Your task to perform on an android device: install app "Mercado Libre" Image 0: 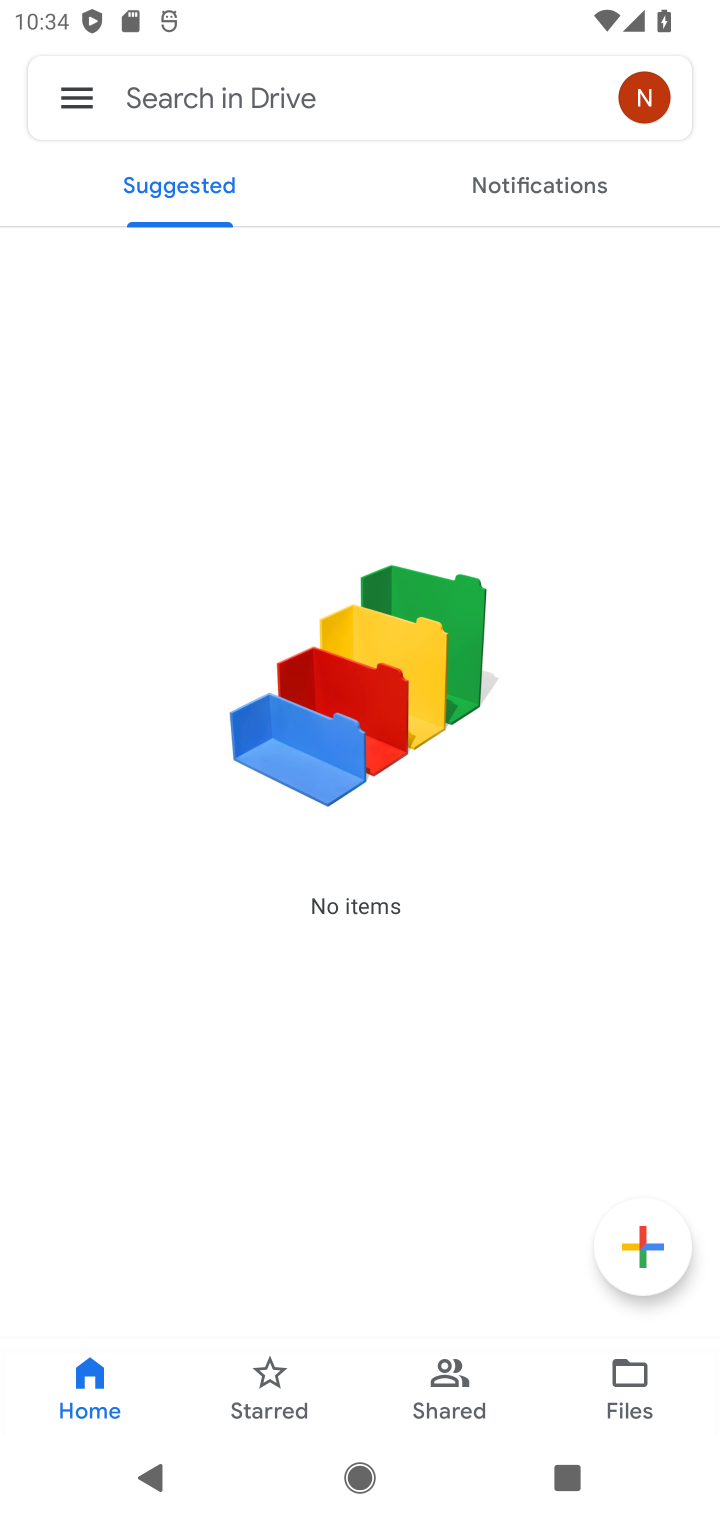
Step 0: press home button
Your task to perform on an android device: install app "Mercado Libre" Image 1: 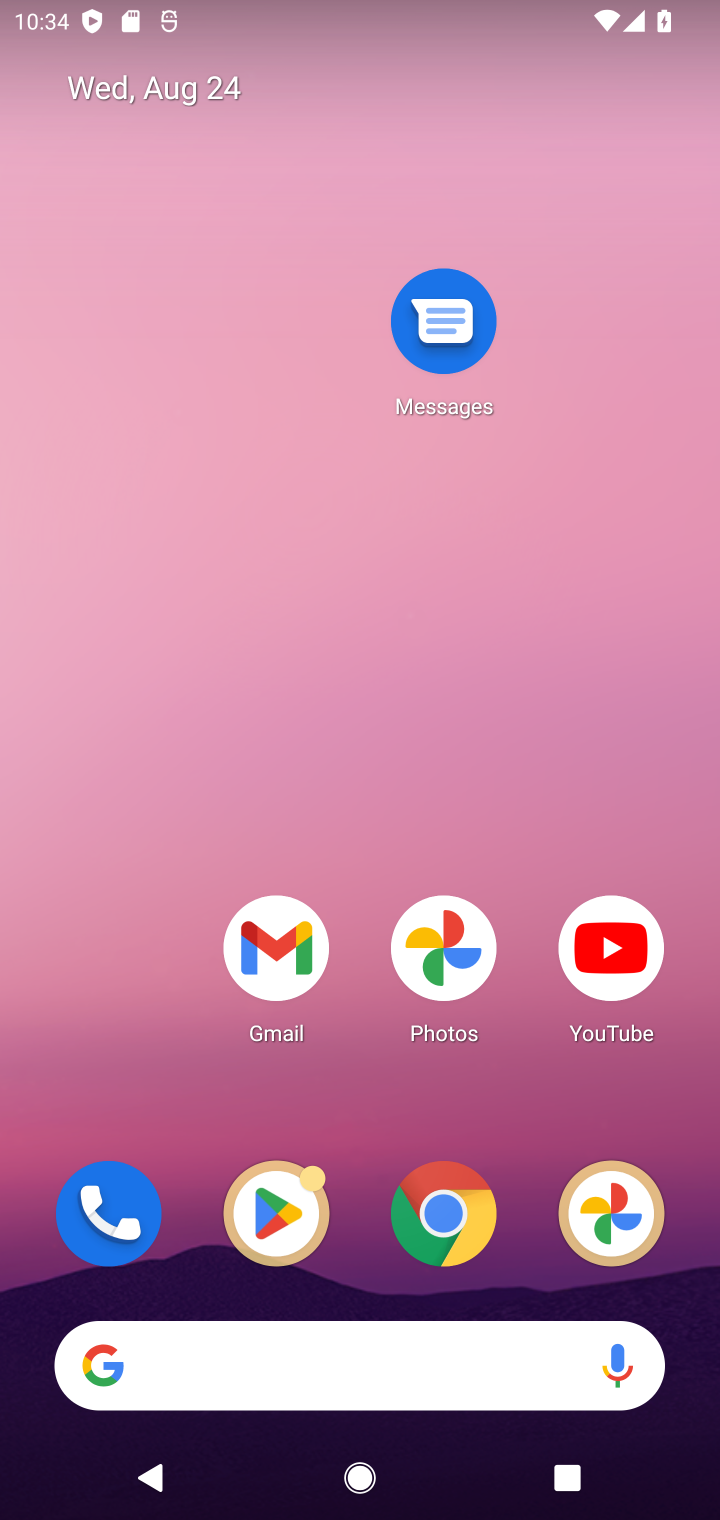
Step 1: click (275, 1225)
Your task to perform on an android device: install app "Mercado Libre" Image 2: 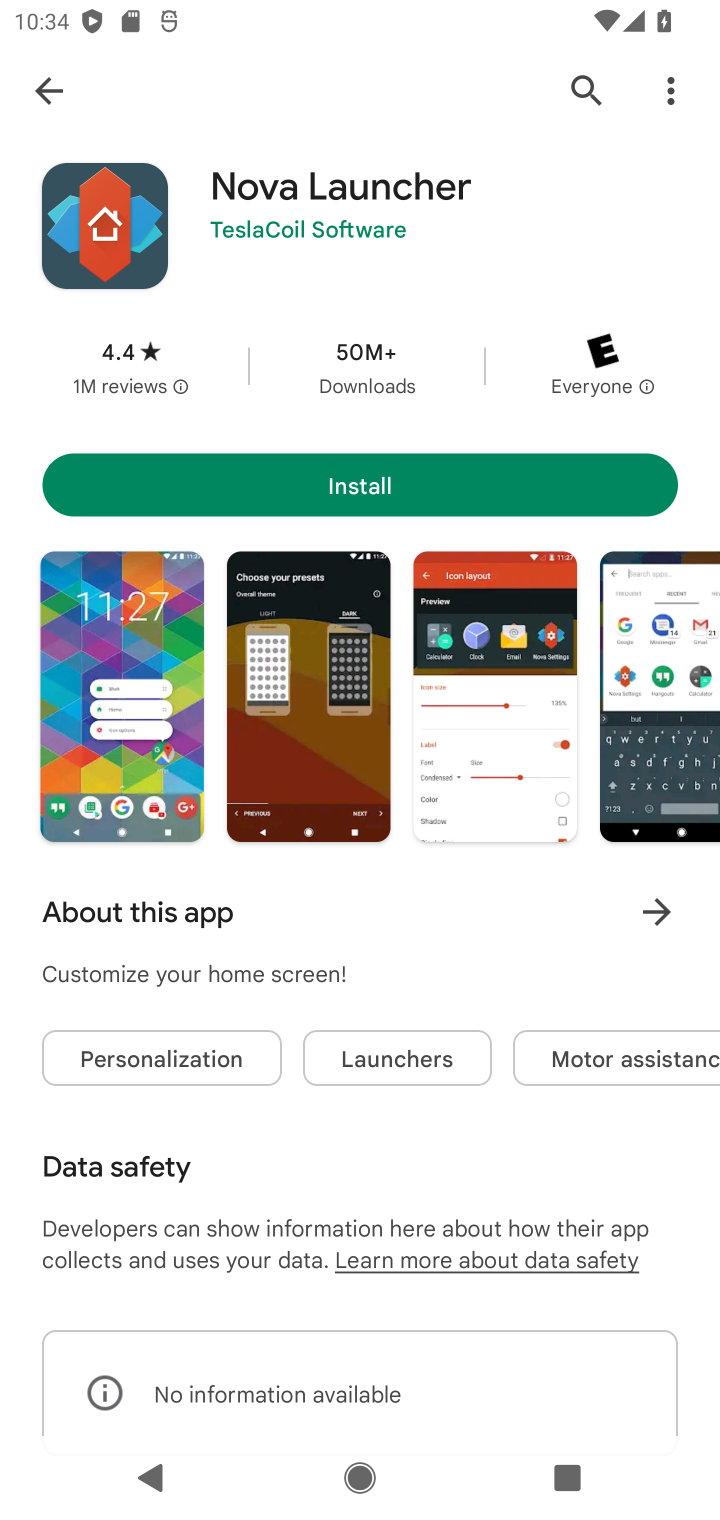
Step 2: click (41, 79)
Your task to perform on an android device: install app "Mercado Libre" Image 3: 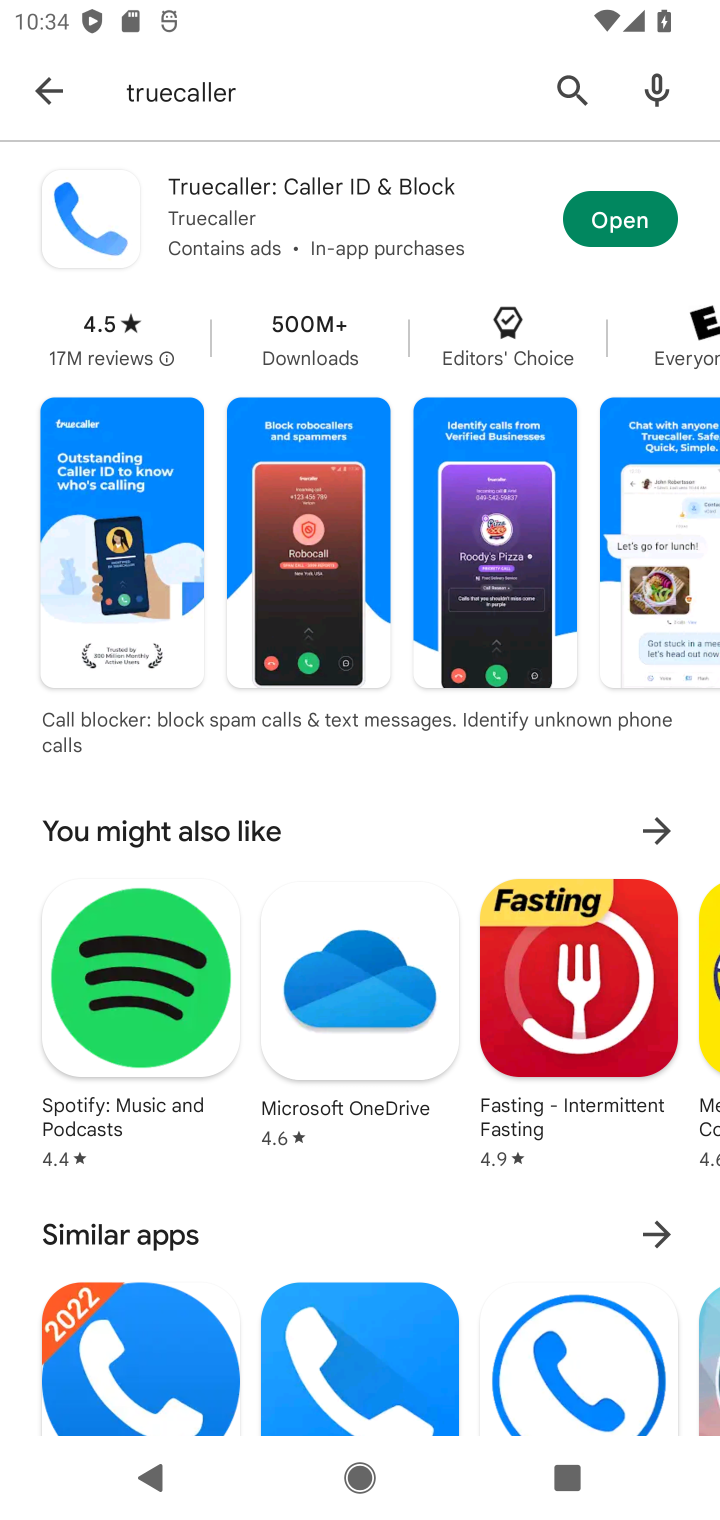
Step 3: click (254, 103)
Your task to perform on an android device: install app "Mercado Libre" Image 4: 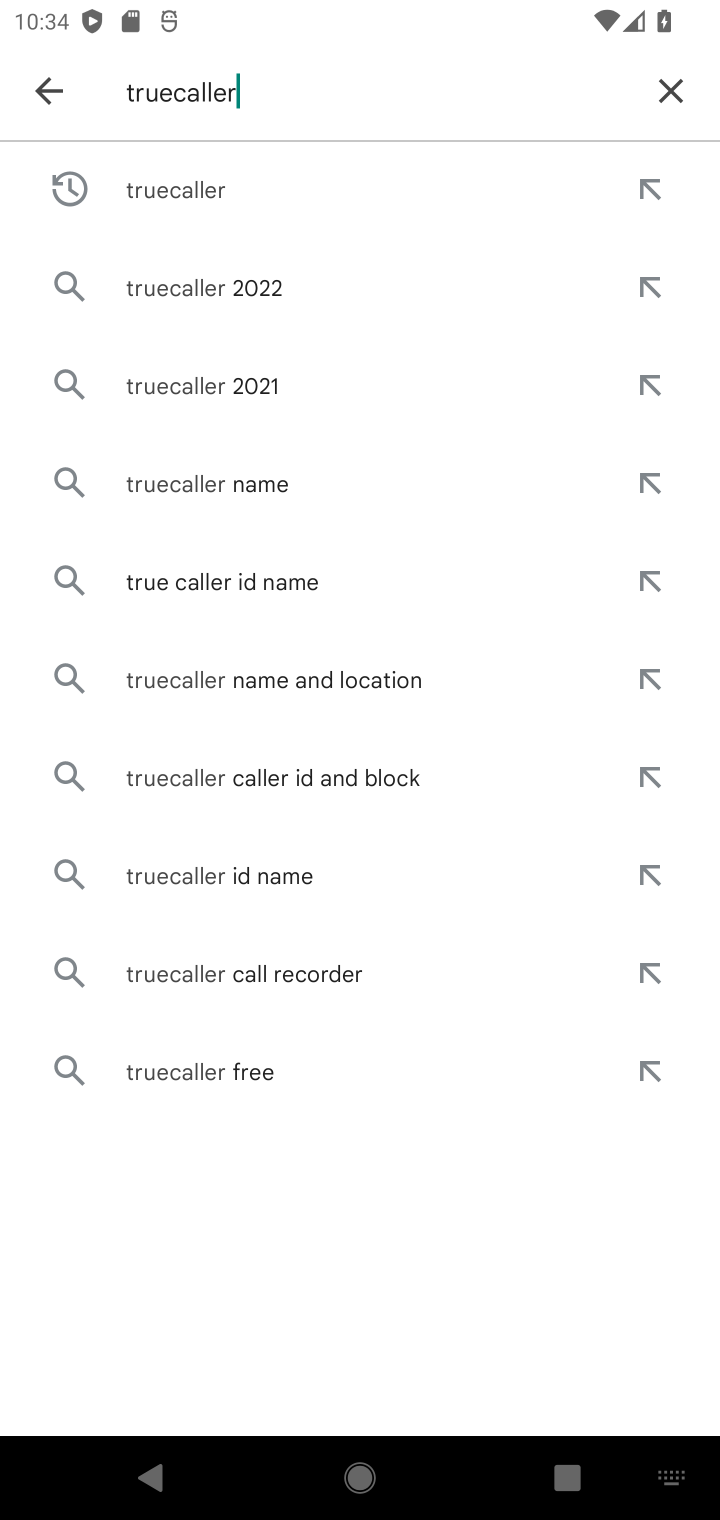
Step 4: click (682, 90)
Your task to perform on an android device: install app "Mercado Libre" Image 5: 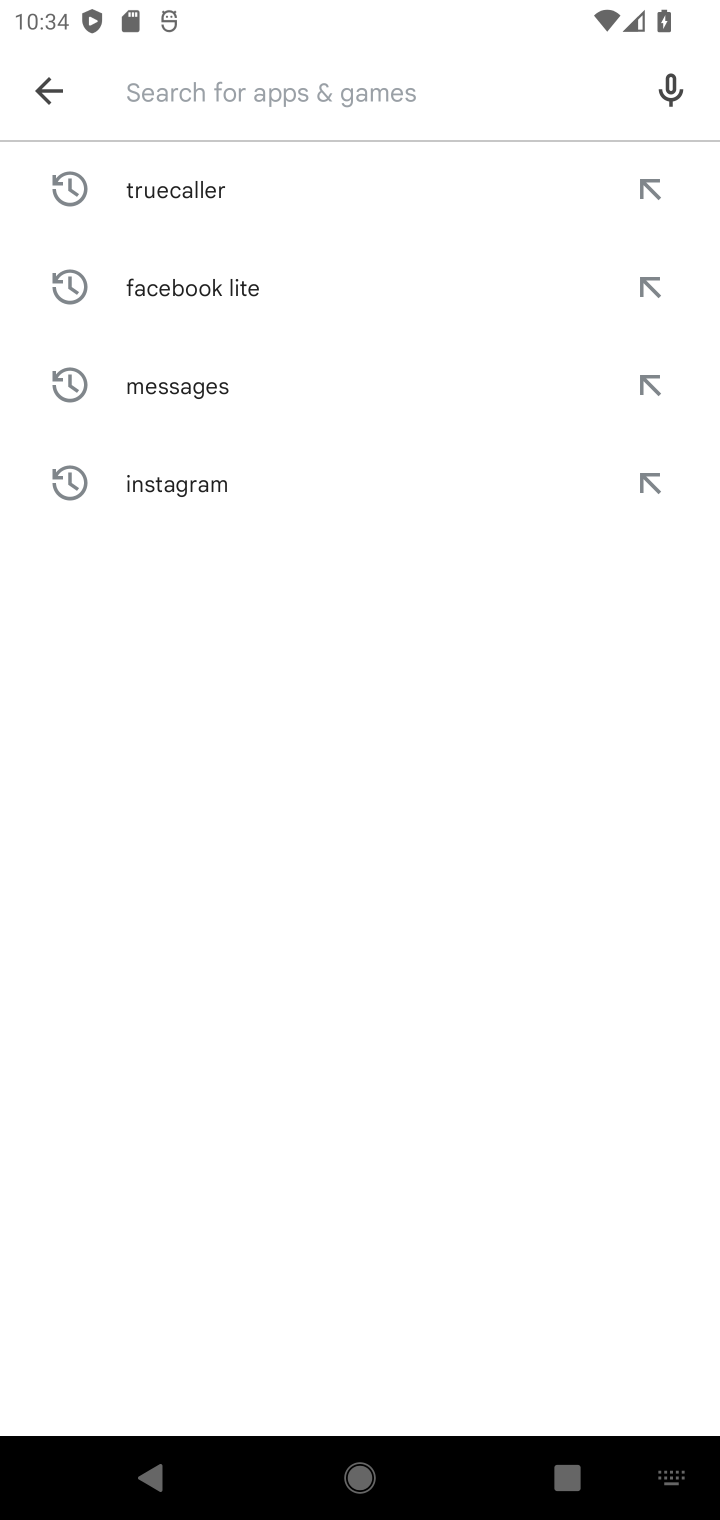
Step 5: type "mercado libre"
Your task to perform on an android device: install app "Mercado Libre" Image 6: 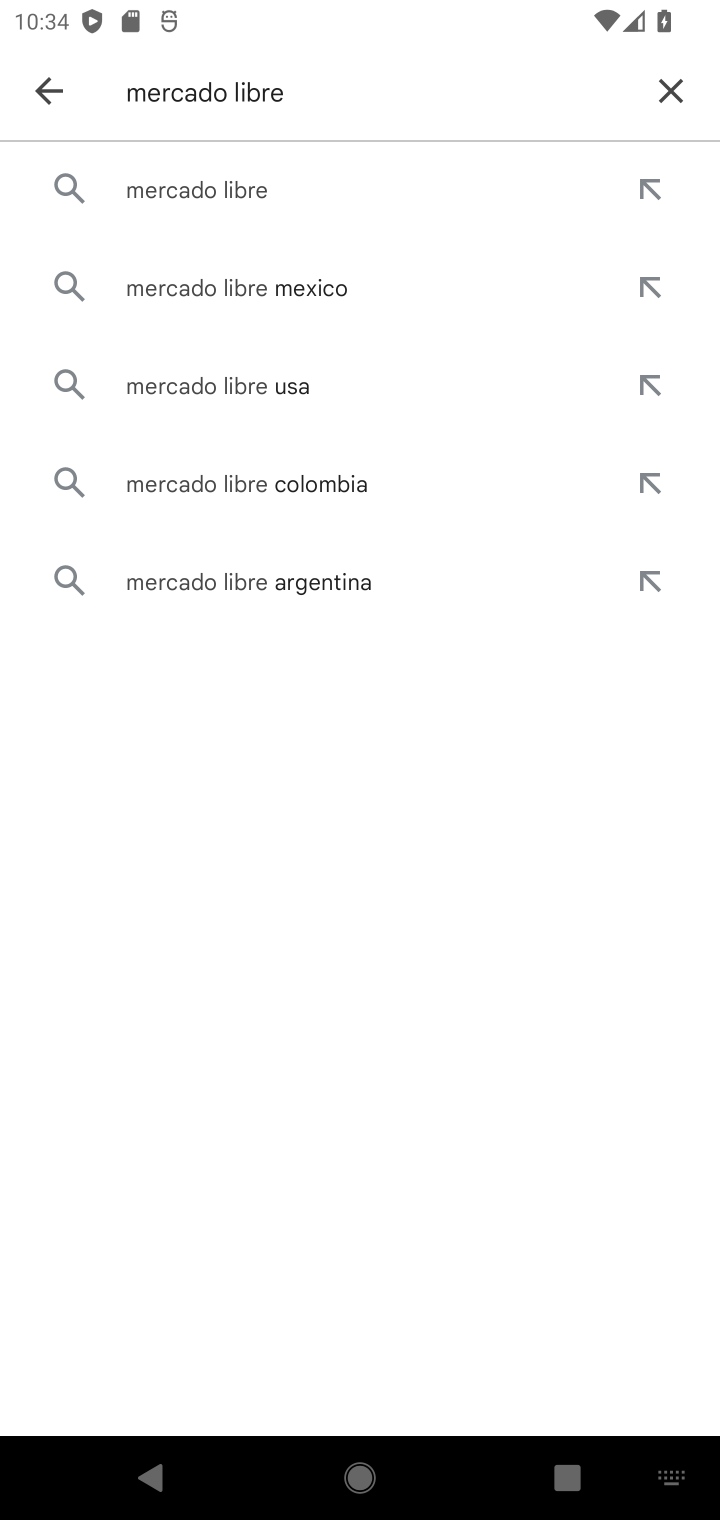
Step 6: click (157, 187)
Your task to perform on an android device: install app "Mercado Libre" Image 7: 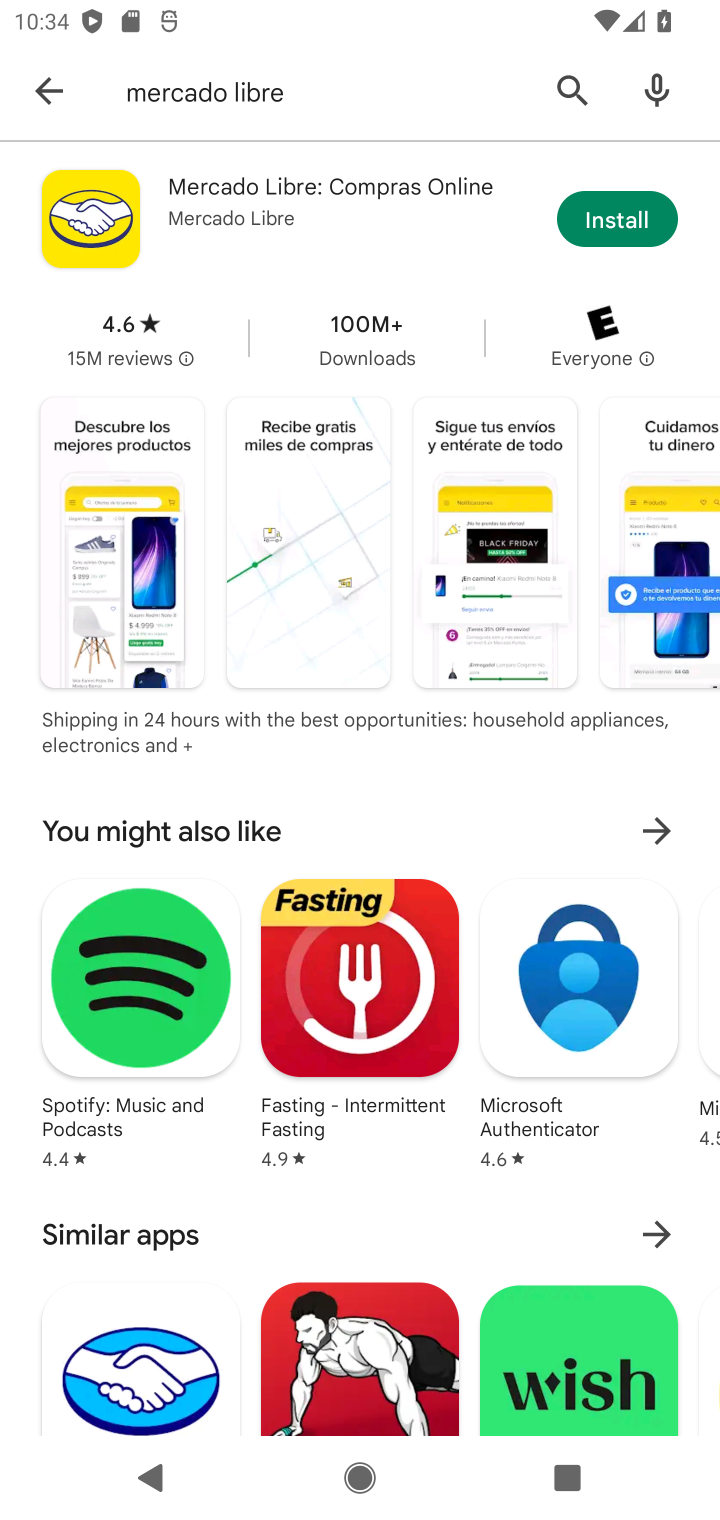
Step 7: click (636, 211)
Your task to perform on an android device: install app "Mercado Libre" Image 8: 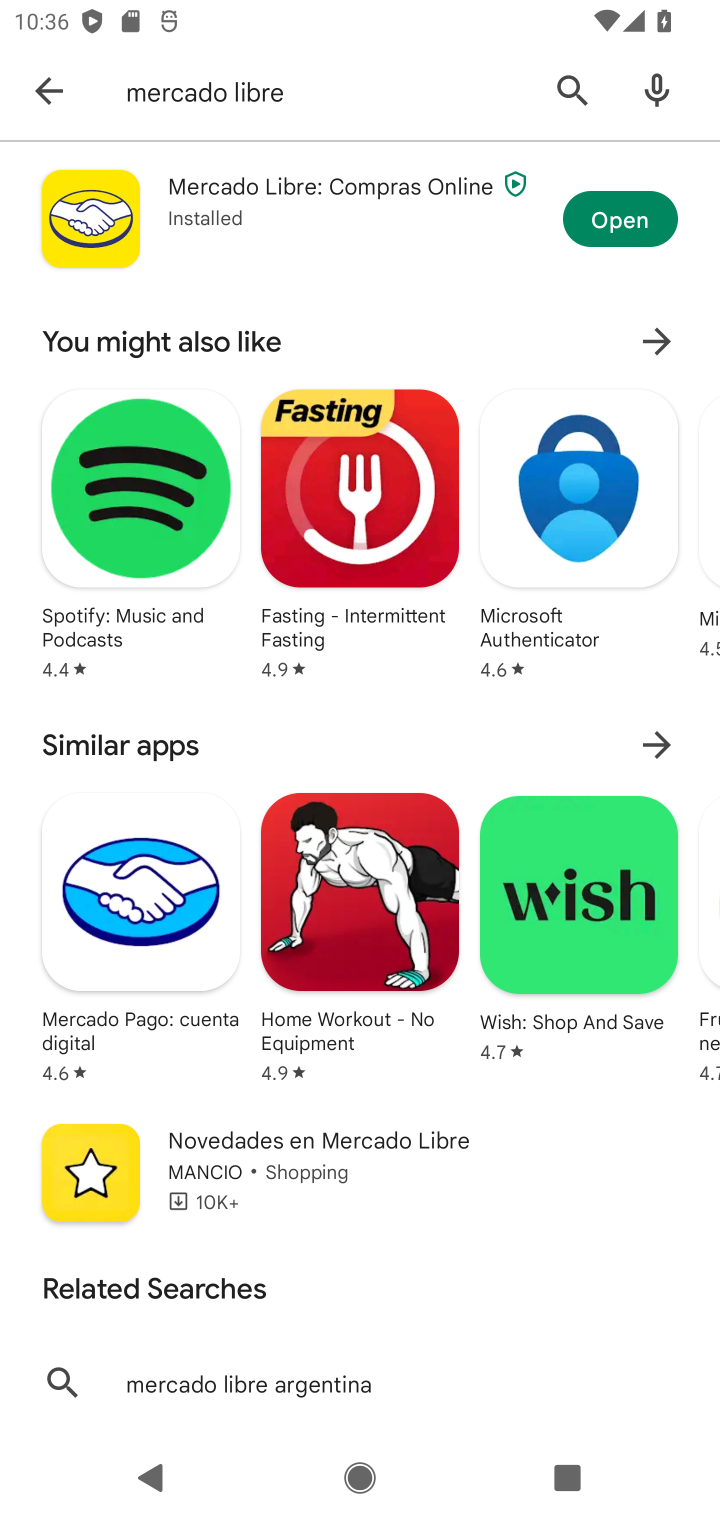
Step 8: task complete